Your task to perform on an android device: Show the shopping cart on ebay.com. Image 0: 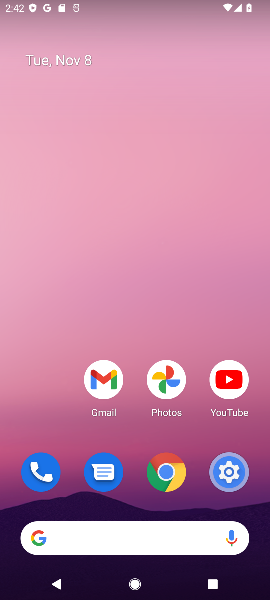
Step 0: task complete